Your task to perform on an android device: turn on notifications settings in the gmail app Image 0: 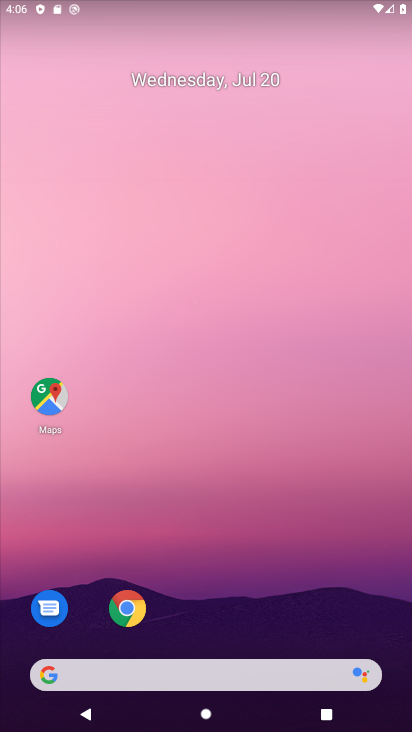
Step 0: drag from (214, 607) to (281, 166)
Your task to perform on an android device: turn on notifications settings in the gmail app Image 1: 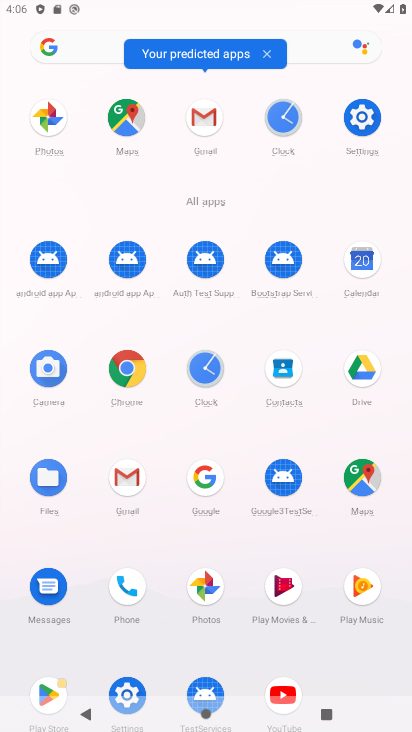
Step 1: click (124, 479)
Your task to perform on an android device: turn on notifications settings in the gmail app Image 2: 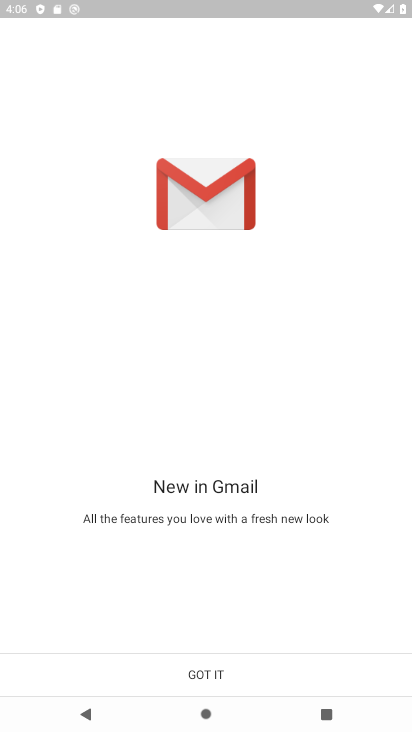
Step 2: click (234, 689)
Your task to perform on an android device: turn on notifications settings in the gmail app Image 3: 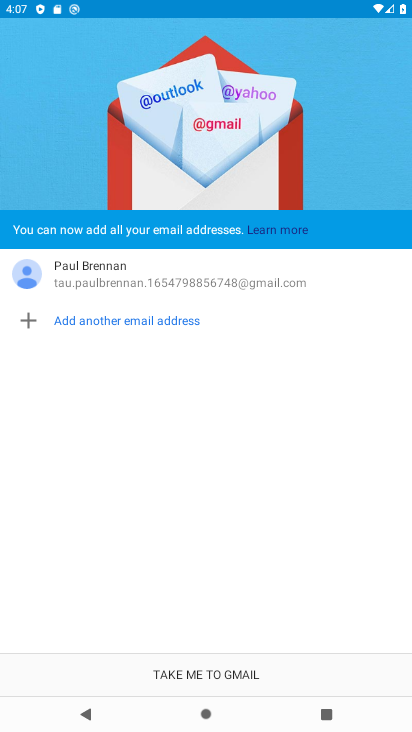
Step 3: click (242, 681)
Your task to perform on an android device: turn on notifications settings in the gmail app Image 4: 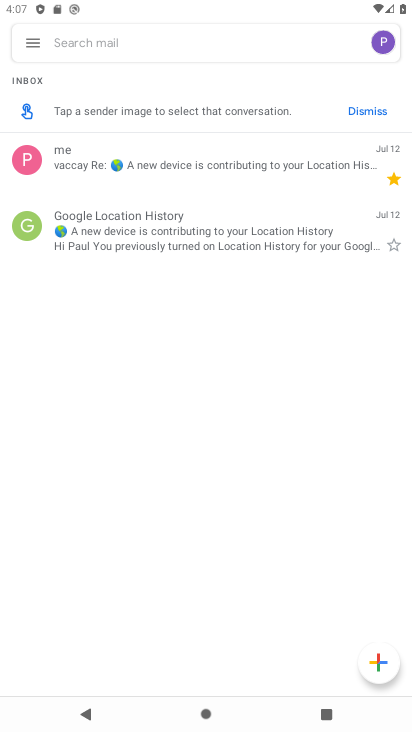
Step 4: click (35, 49)
Your task to perform on an android device: turn on notifications settings in the gmail app Image 5: 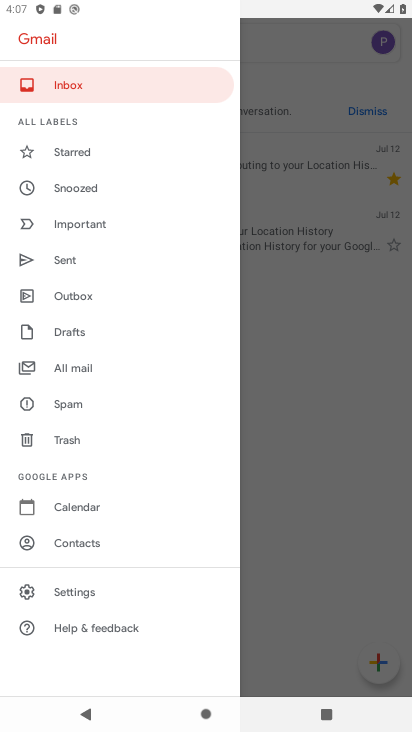
Step 5: click (105, 595)
Your task to perform on an android device: turn on notifications settings in the gmail app Image 6: 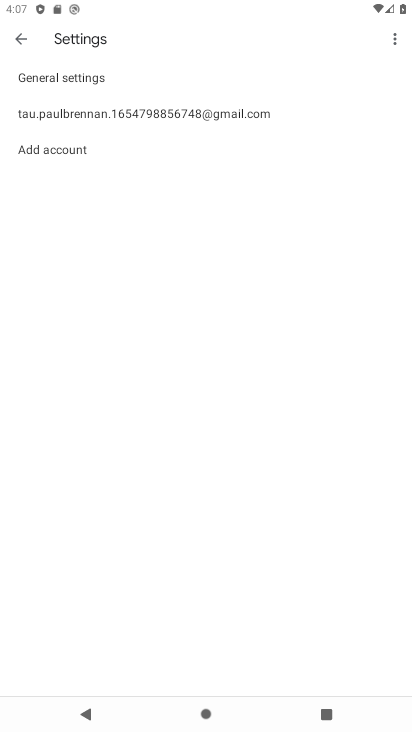
Step 6: click (186, 123)
Your task to perform on an android device: turn on notifications settings in the gmail app Image 7: 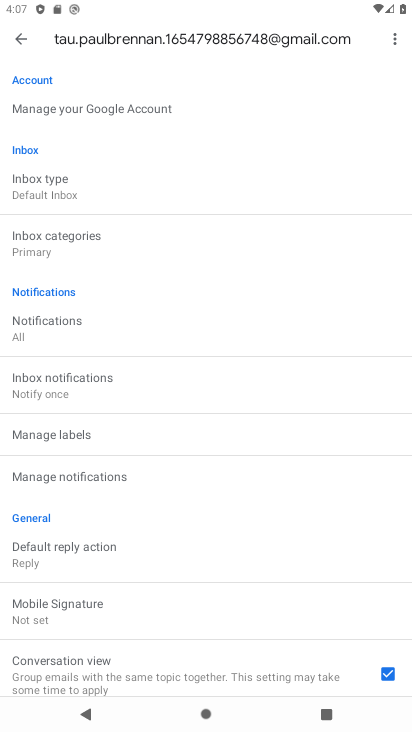
Step 7: click (133, 481)
Your task to perform on an android device: turn on notifications settings in the gmail app Image 8: 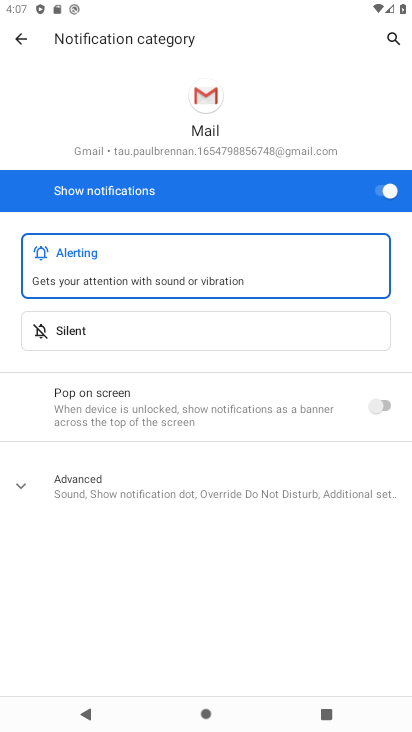
Step 8: task complete